Your task to perform on an android device: turn on airplane mode Image 0: 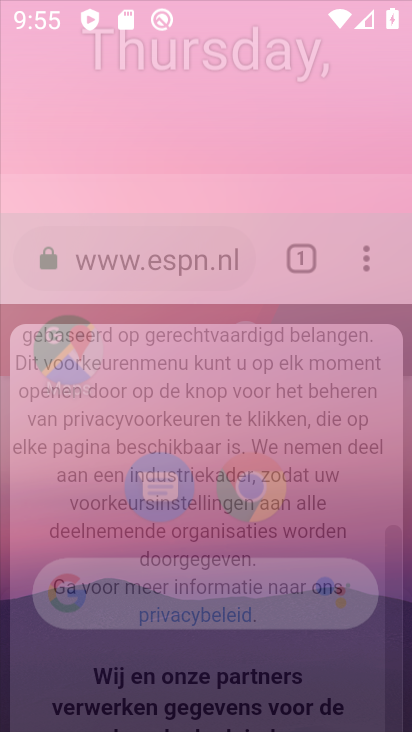
Step 0: drag from (193, 510) to (199, 23)
Your task to perform on an android device: turn on airplane mode Image 1: 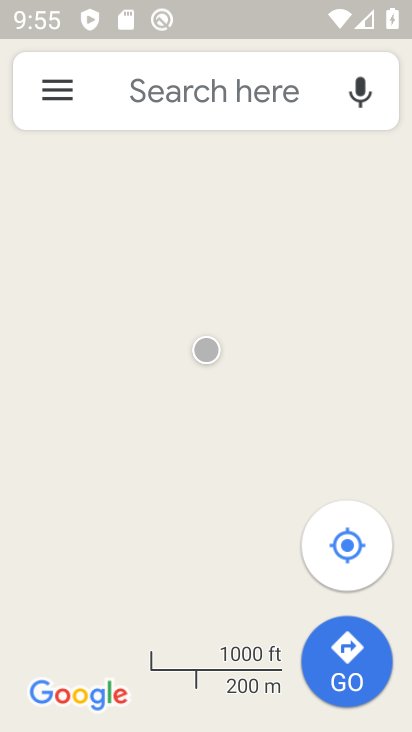
Step 1: press home button
Your task to perform on an android device: turn on airplane mode Image 2: 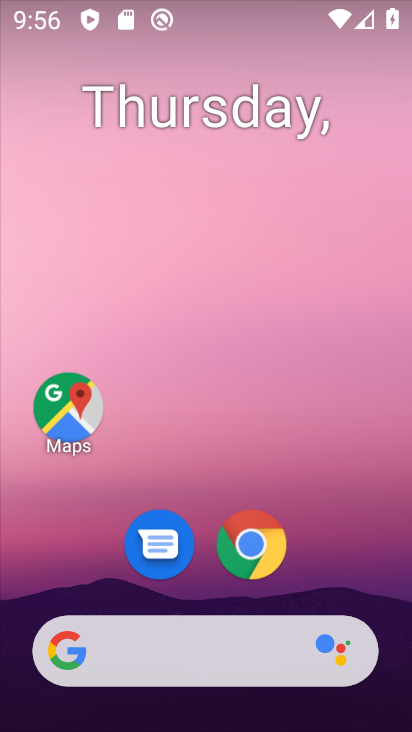
Step 2: drag from (210, 11) to (210, 617)
Your task to perform on an android device: turn on airplane mode Image 3: 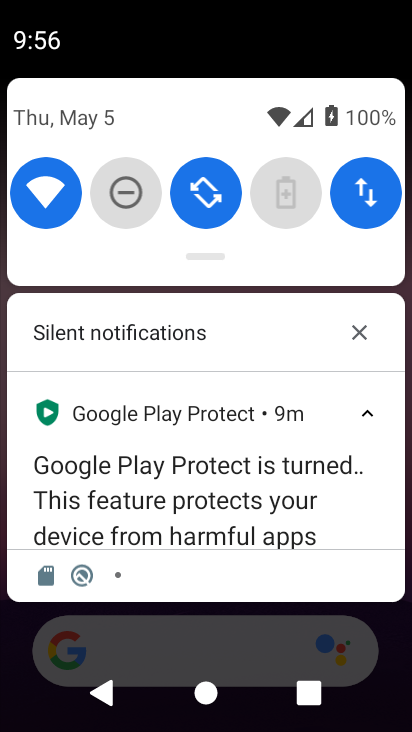
Step 3: drag from (204, 251) to (274, 728)
Your task to perform on an android device: turn on airplane mode Image 4: 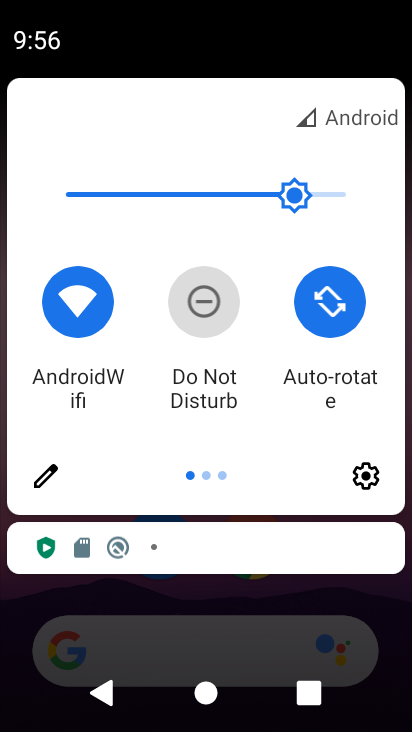
Step 4: drag from (364, 346) to (90, 338)
Your task to perform on an android device: turn on airplane mode Image 5: 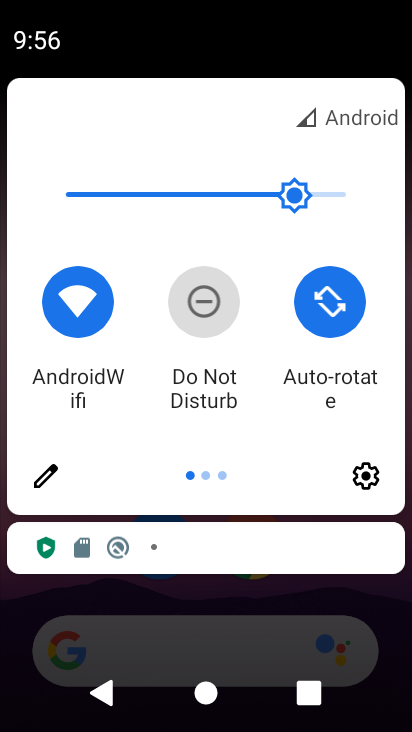
Step 5: drag from (361, 342) to (0, 376)
Your task to perform on an android device: turn on airplane mode Image 6: 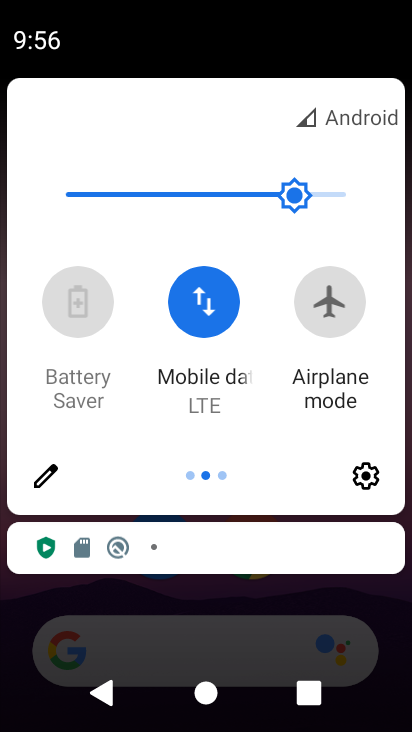
Step 6: click (322, 301)
Your task to perform on an android device: turn on airplane mode Image 7: 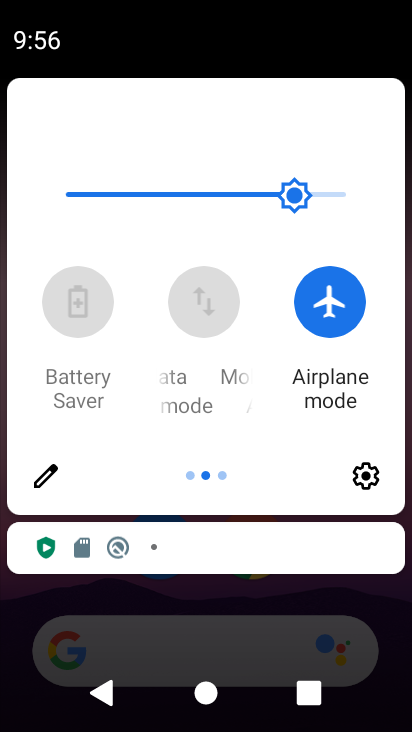
Step 7: task complete